Your task to perform on an android device: Check the settings for the Google Play Movies app Image 0: 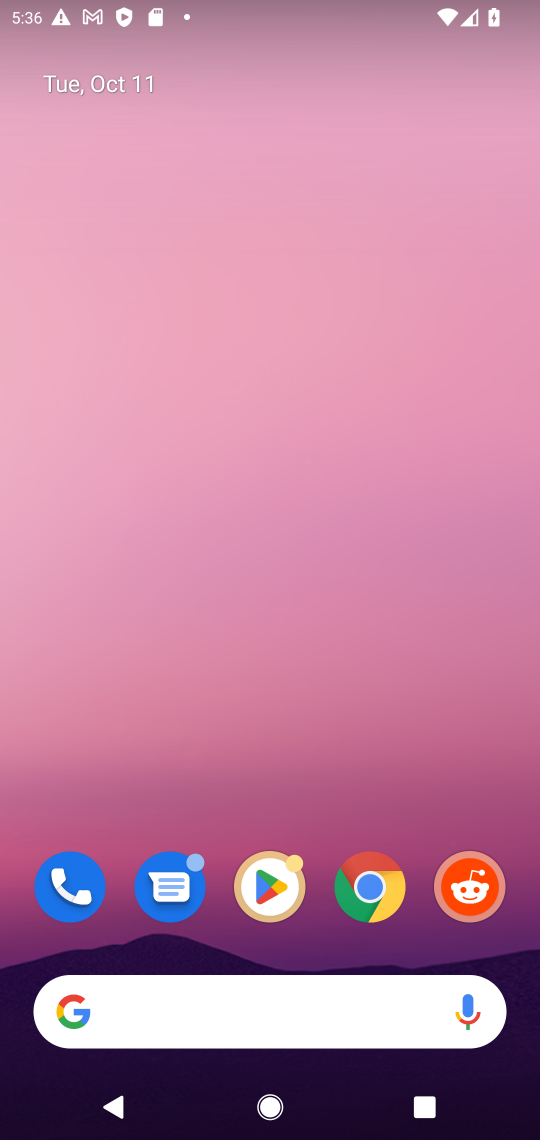
Step 0: click (261, 1003)
Your task to perform on an android device: Check the settings for the Google Play Movies app Image 1: 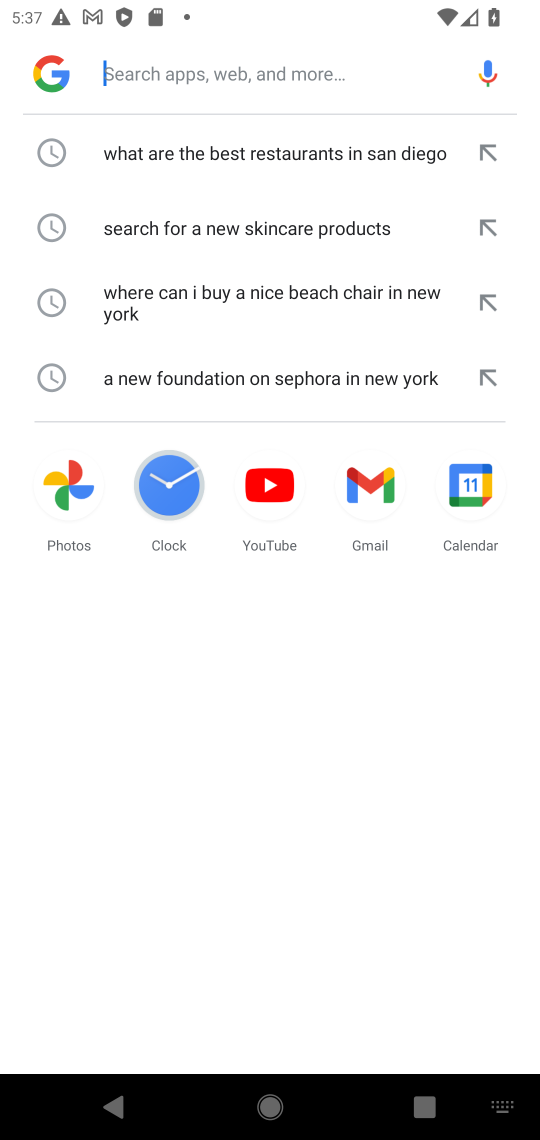
Step 1: press home button
Your task to perform on an android device: Check the settings for the Google Play Movies app Image 2: 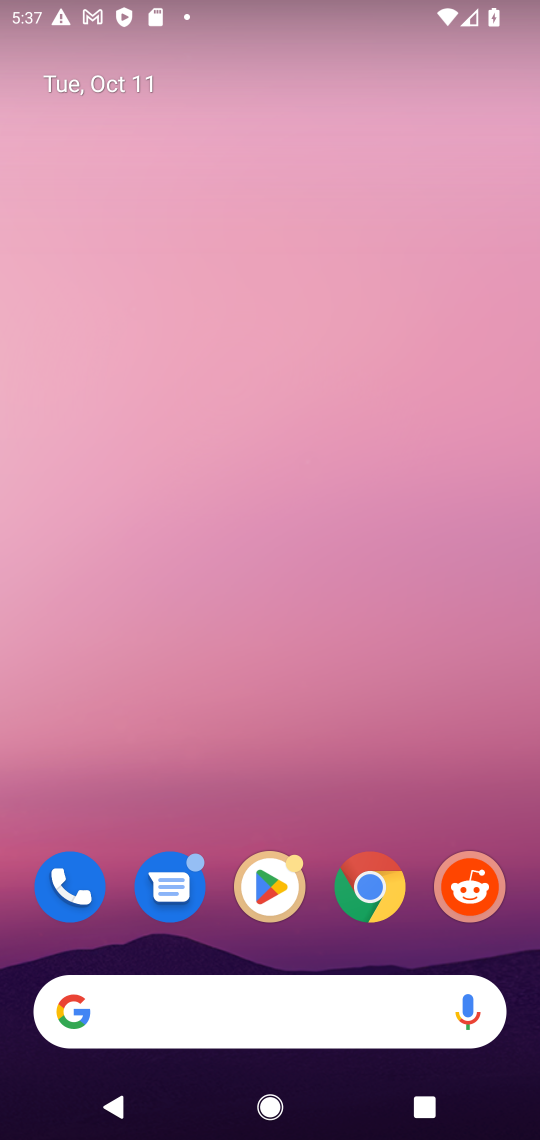
Step 2: click (268, 896)
Your task to perform on an android device: Check the settings for the Google Play Movies app Image 3: 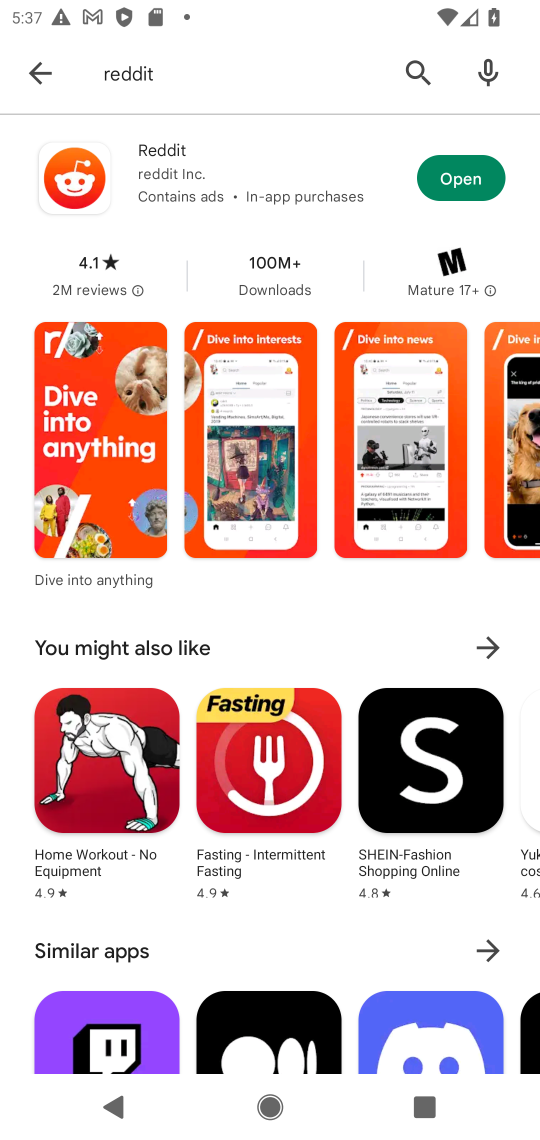
Step 3: click (37, 77)
Your task to perform on an android device: Check the settings for the Google Play Movies app Image 4: 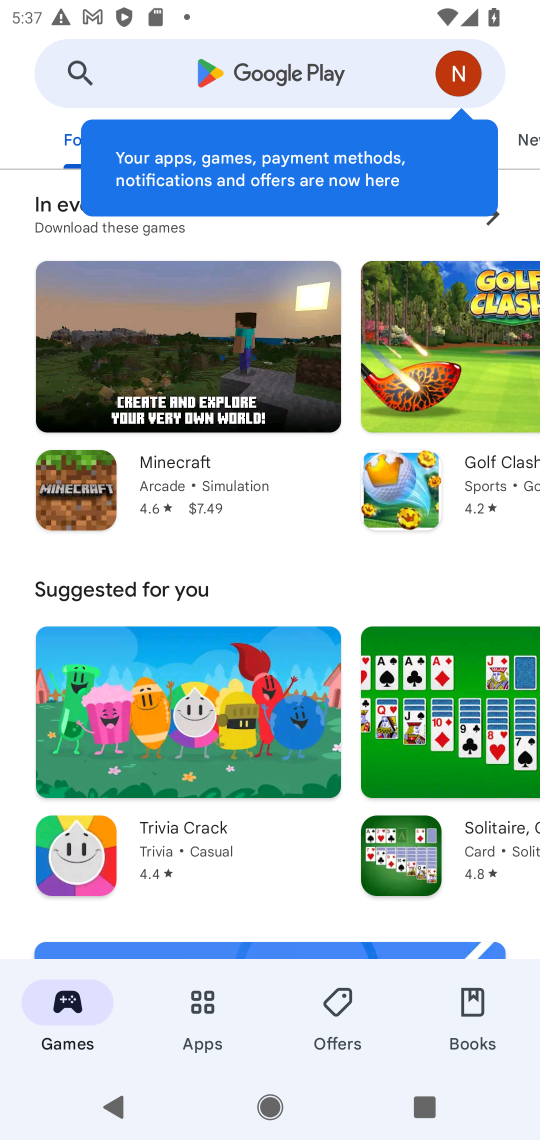
Step 4: click (247, 74)
Your task to perform on an android device: Check the settings for the Google Play Movies app Image 5: 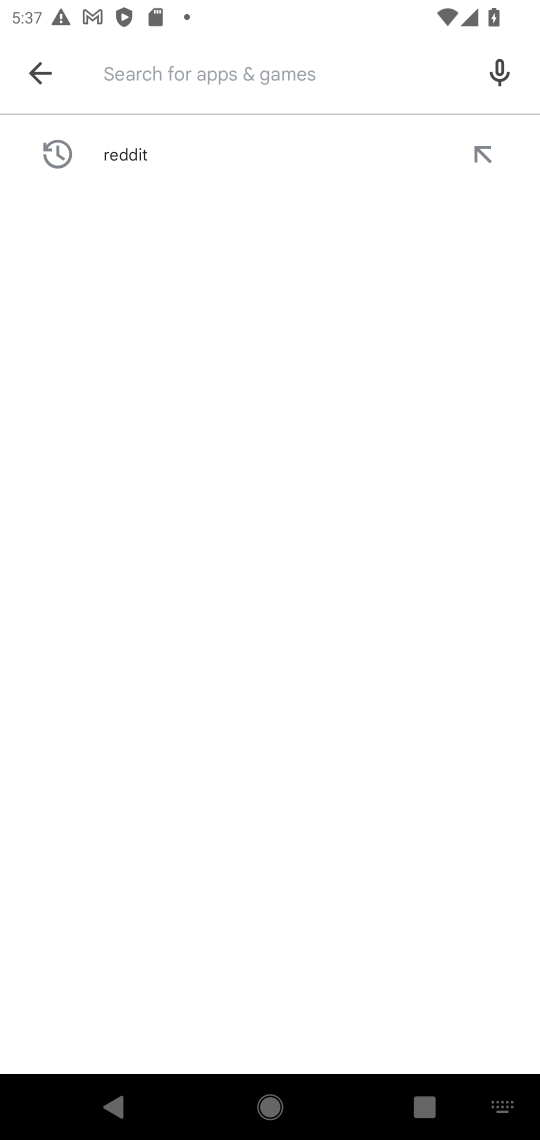
Step 5: type "Google Play Movies app"
Your task to perform on an android device: Check the settings for the Google Play Movies app Image 6: 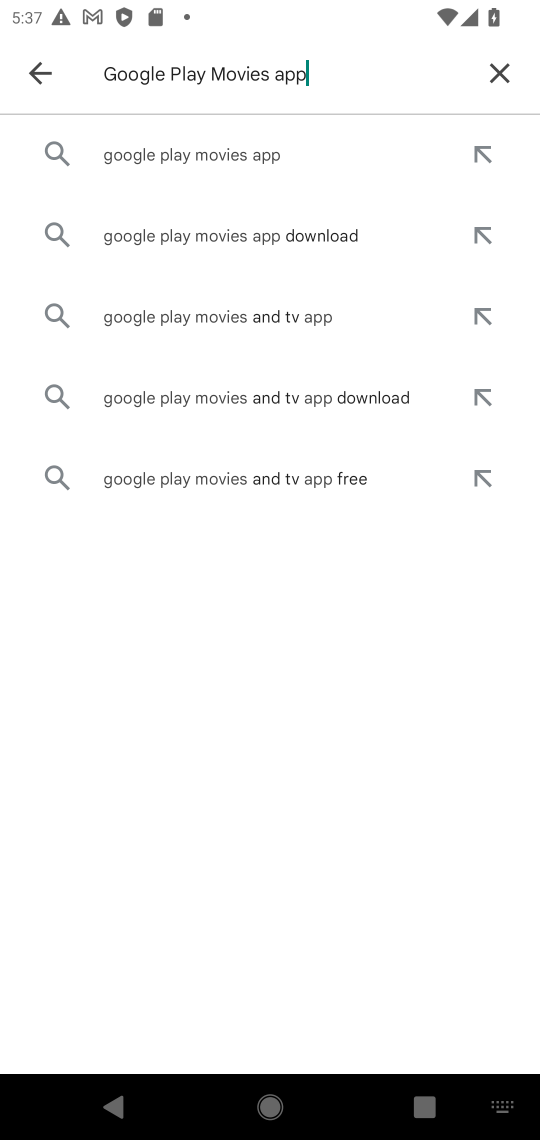
Step 6: click (190, 170)
Your task to perform on an android device: Check the settings for the Google Play Movies app Image 7: 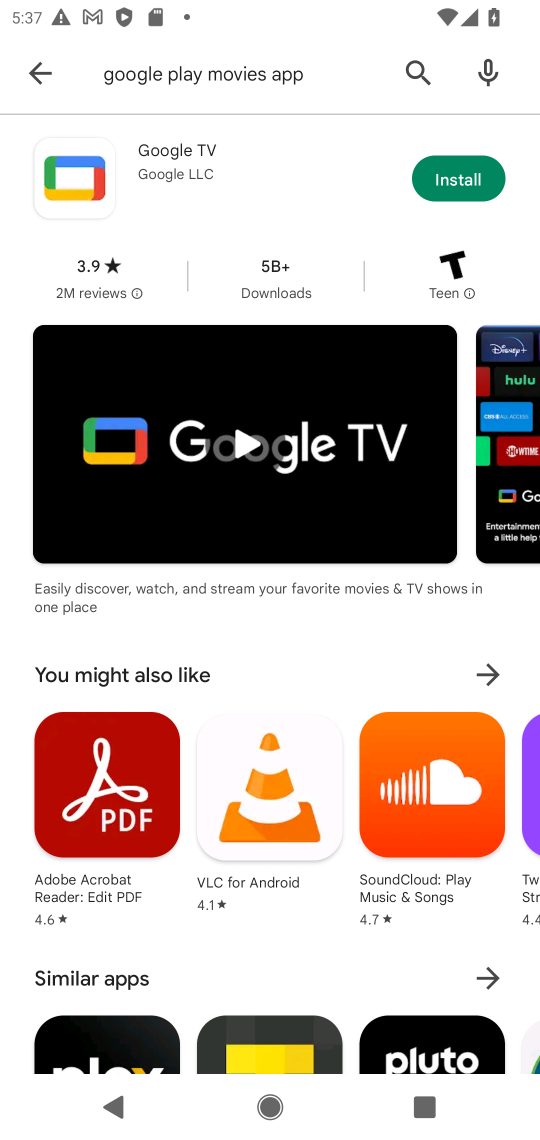
Step 7: click (475, 176)
Your task to perform on an android device: Check the settings for the Google Play Movies app Image 8: 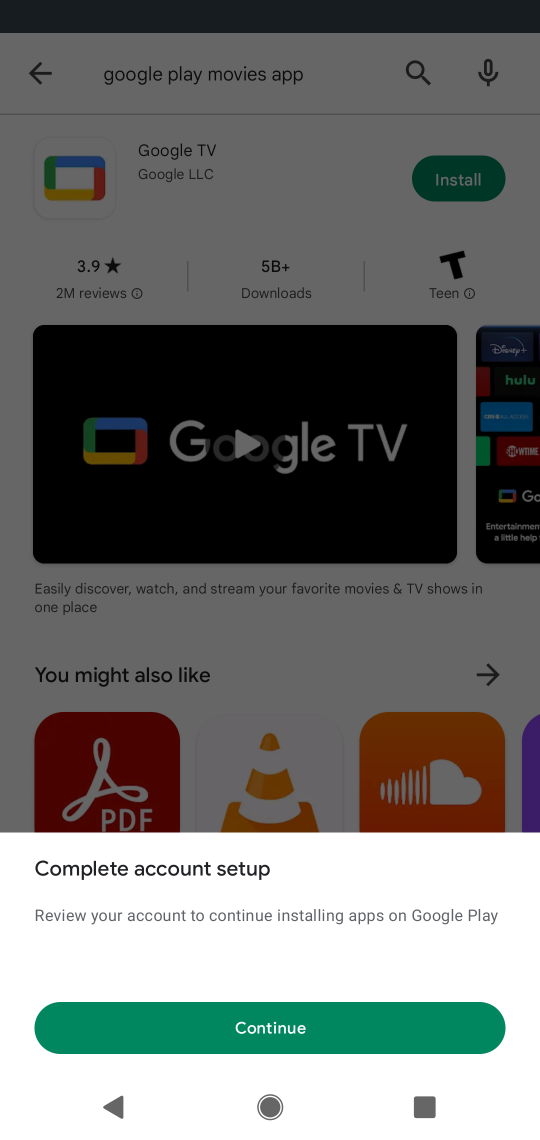
Step 8: click (263, 1043)
Your task to perform on an android device: Check the settings for the Google Play Movies app Image 9: 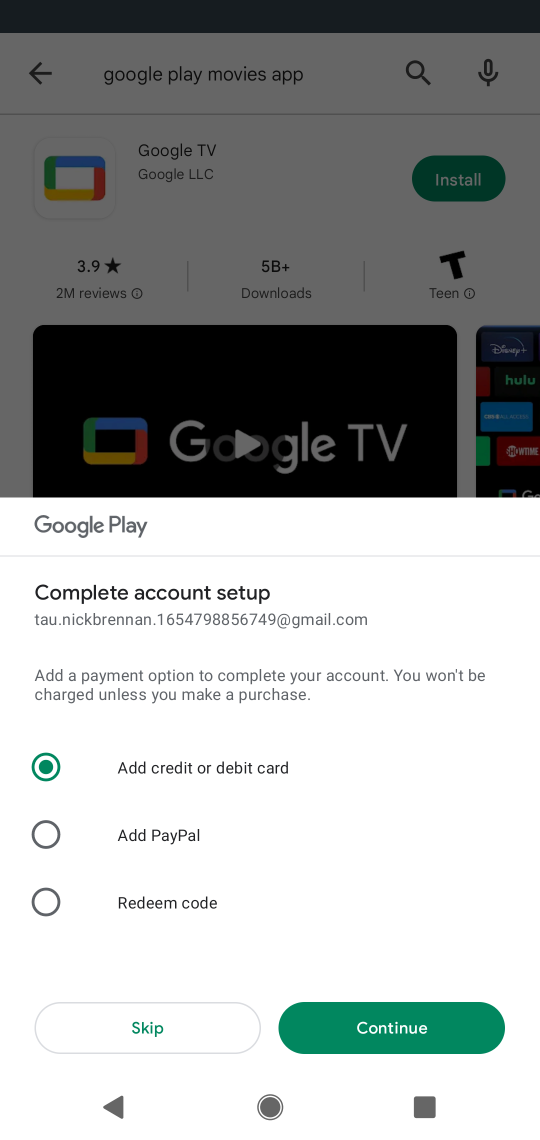
Step 9: click (159, 1018)
Your task to perform on an android device: Check the settings for the Google Play Movies app Image 10: 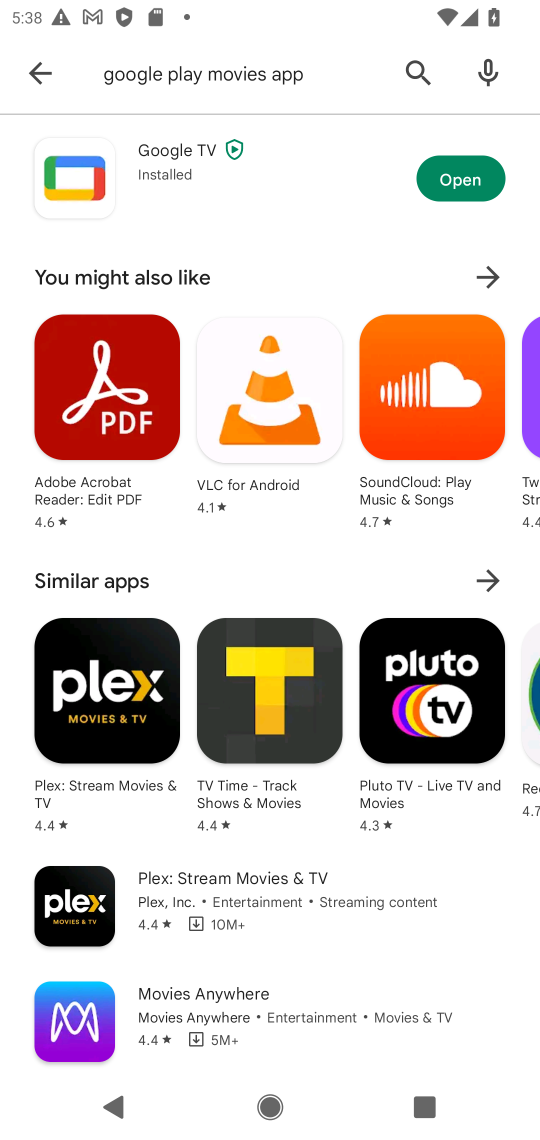
Step 10: click (460, 177)
Your task to perform on an android device: Check the settings for the Google Play Movies app Image 11: 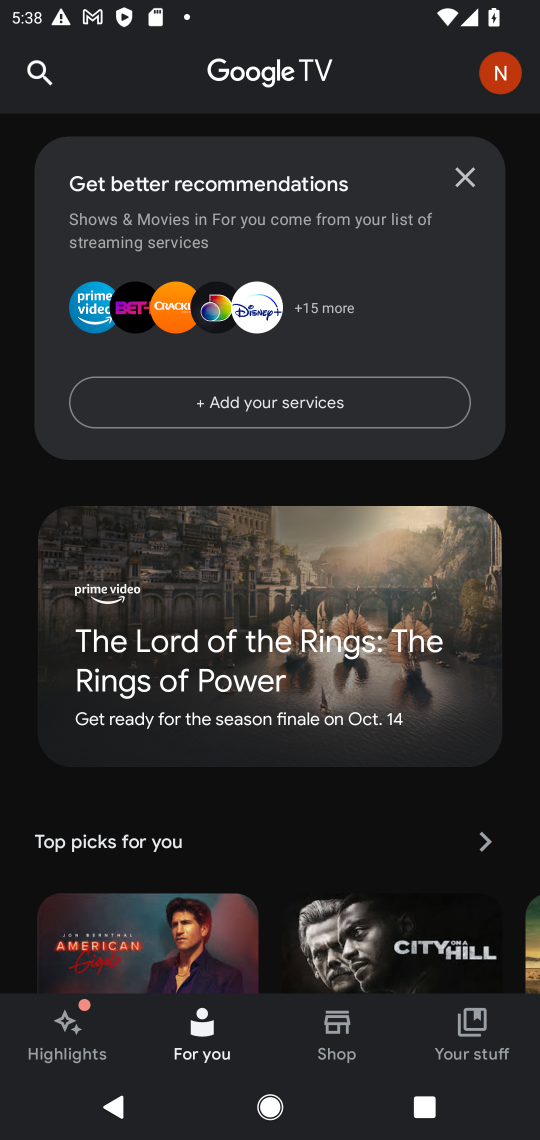
Step 11: task complete